Your task to perform on an android device: Add acer predator to the cart on walmart.com Image 0: 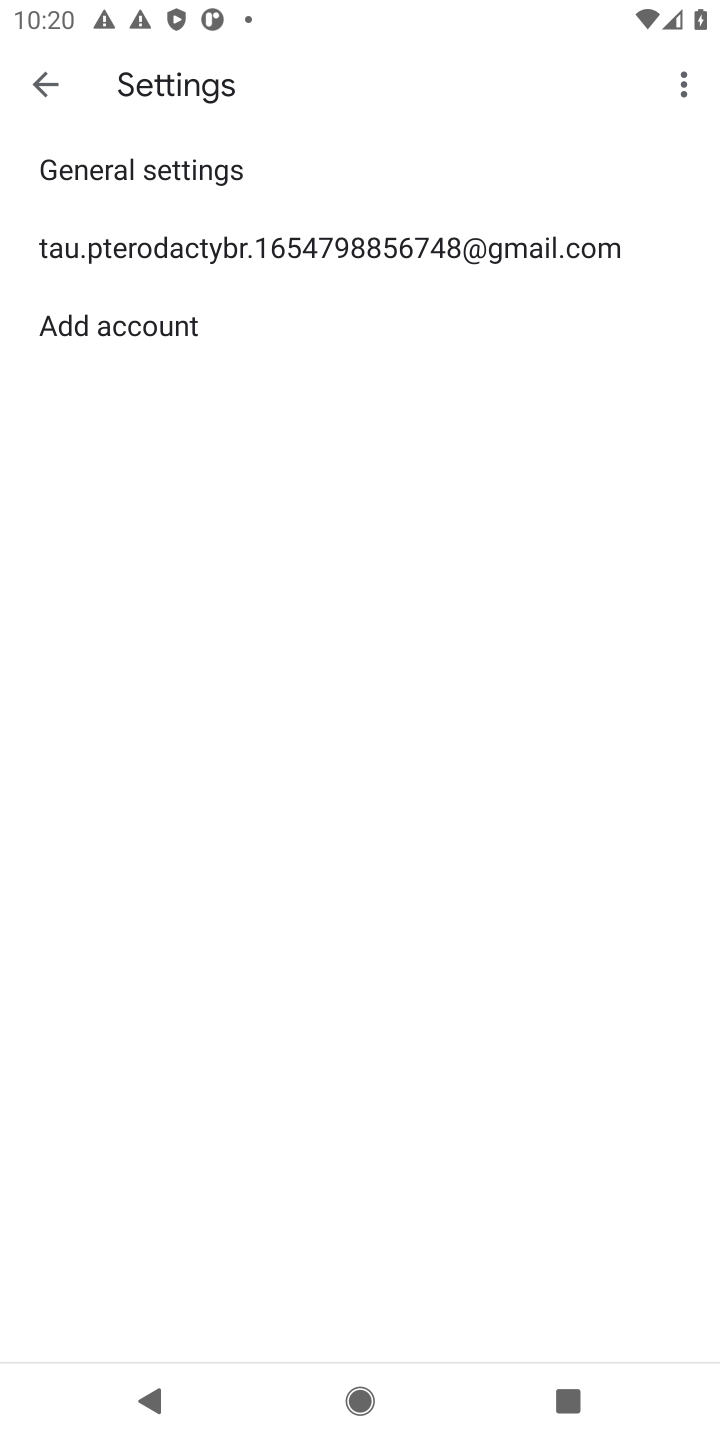
Step 0: press home button
Your task to perform on an android device: Add acer predator to the cart on walmart.com Image 1: 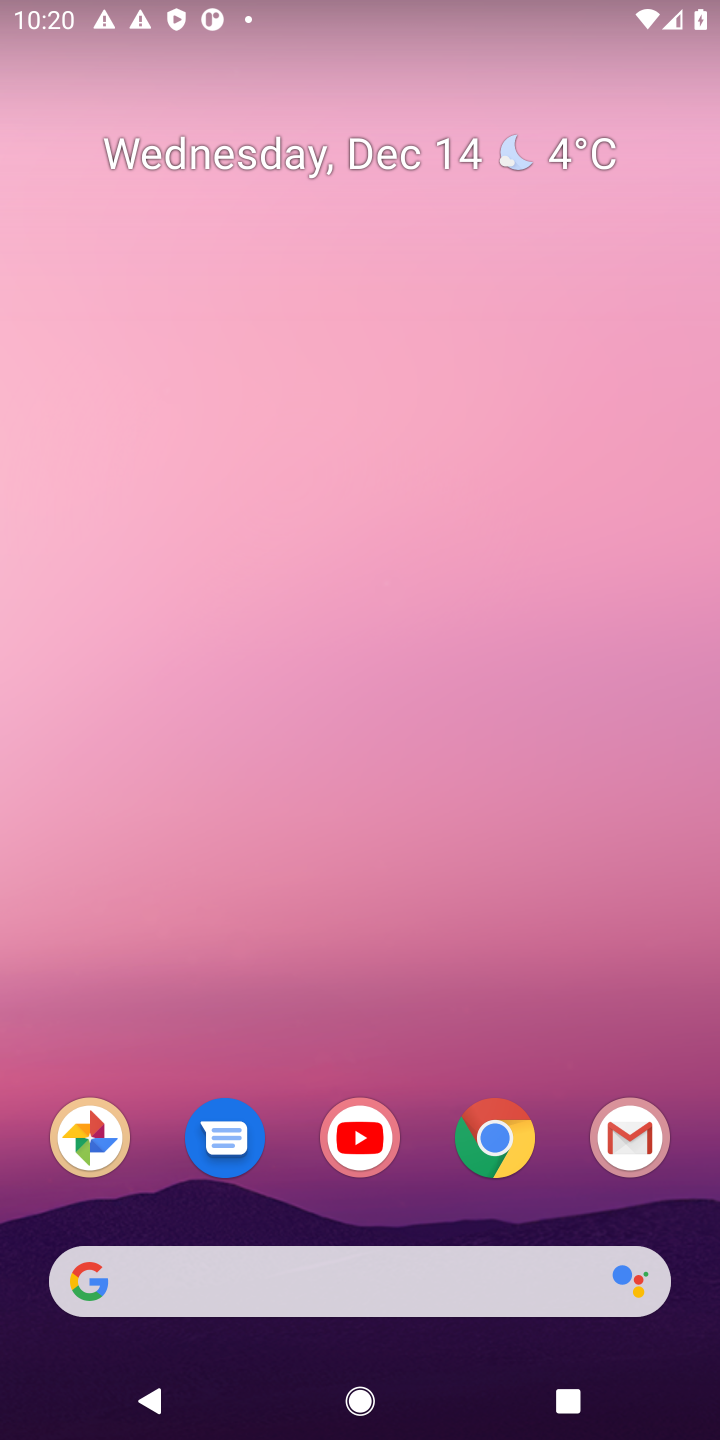
Step 1: click (496, 1140)
Your task to perform on an android device: Add acer predator to the cart on walmart.com Image 2: 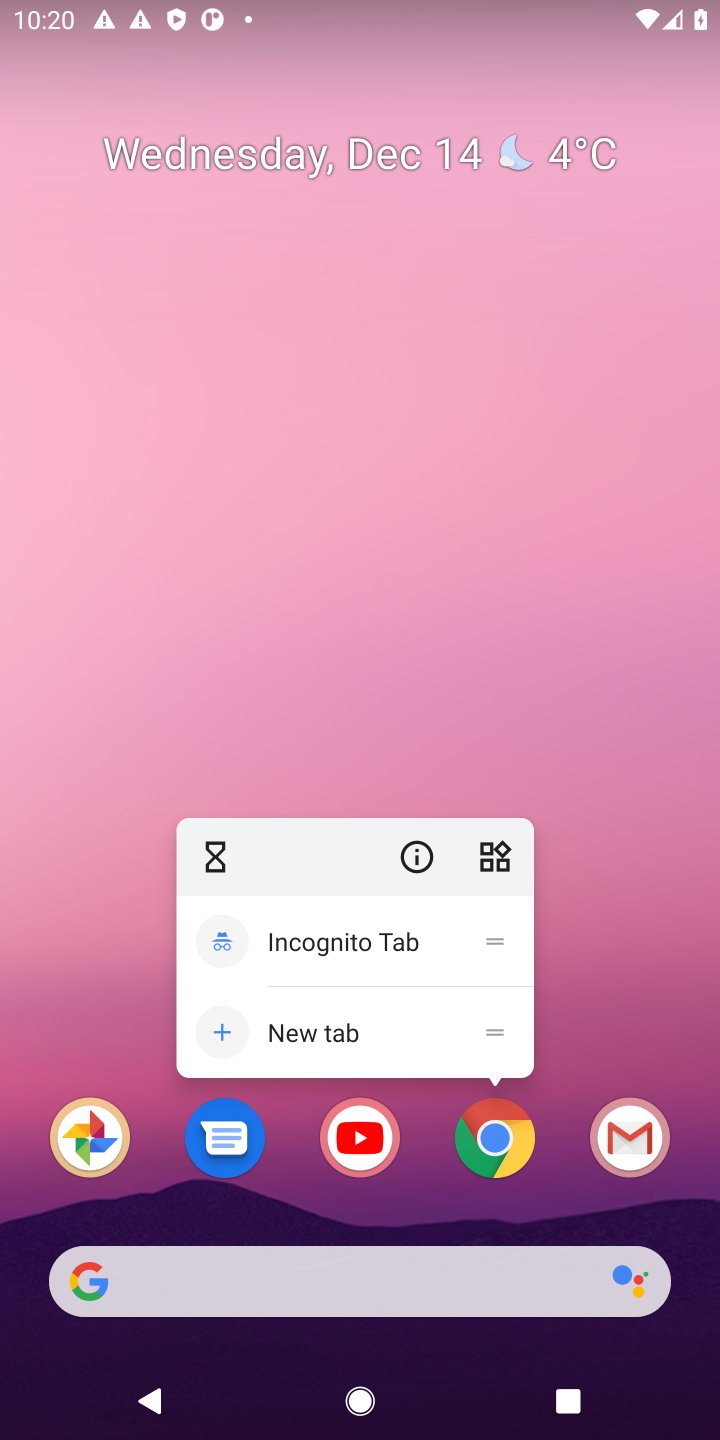
Step 2: click (498, 1139)
Your task to perform on an android device: Add acer predator to the cart on walmart.com Image 3: 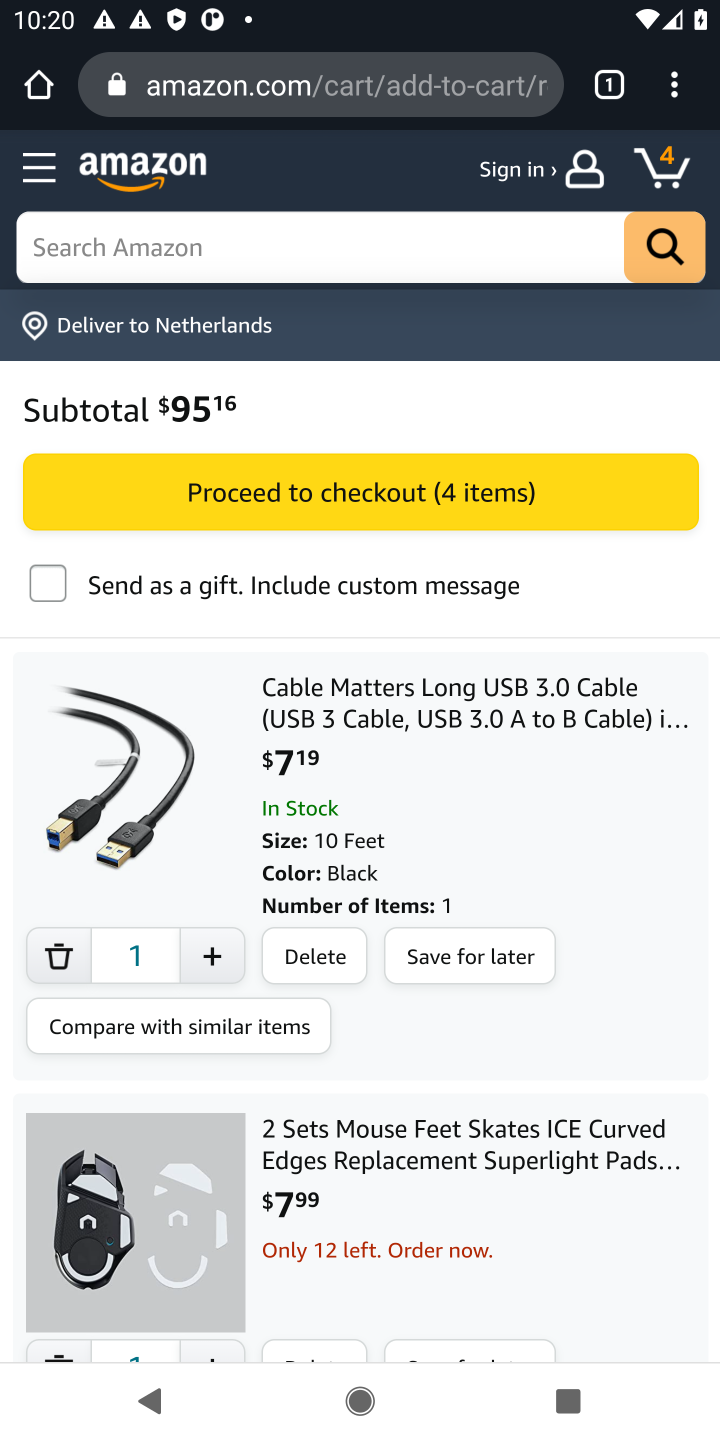
Step 3: click (232, 97)
Your task to perform on an android device: Add acer predator to the cart on walmart.com Image 4: 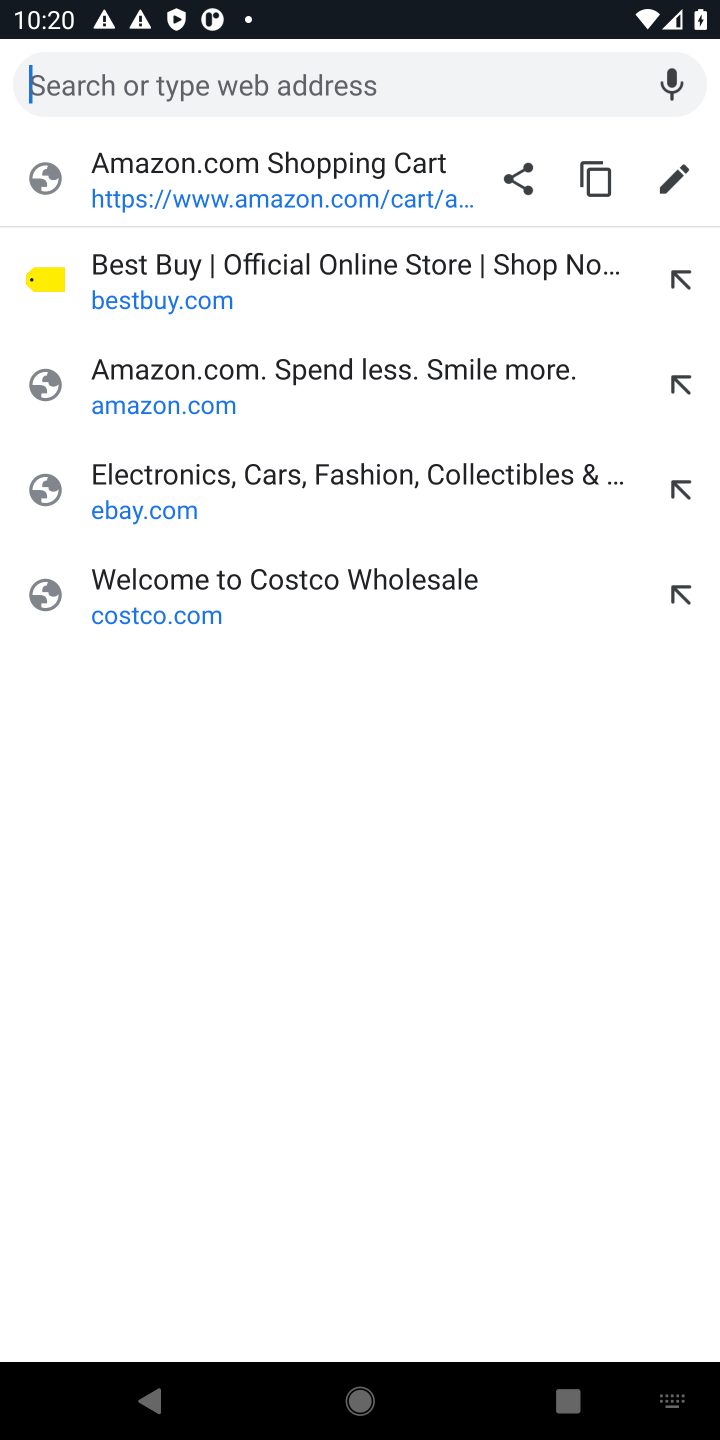
Step 4: type "walmart.com"
Your task to perform on an android device: Add acer predator to the cart on walmart.com Image 5: 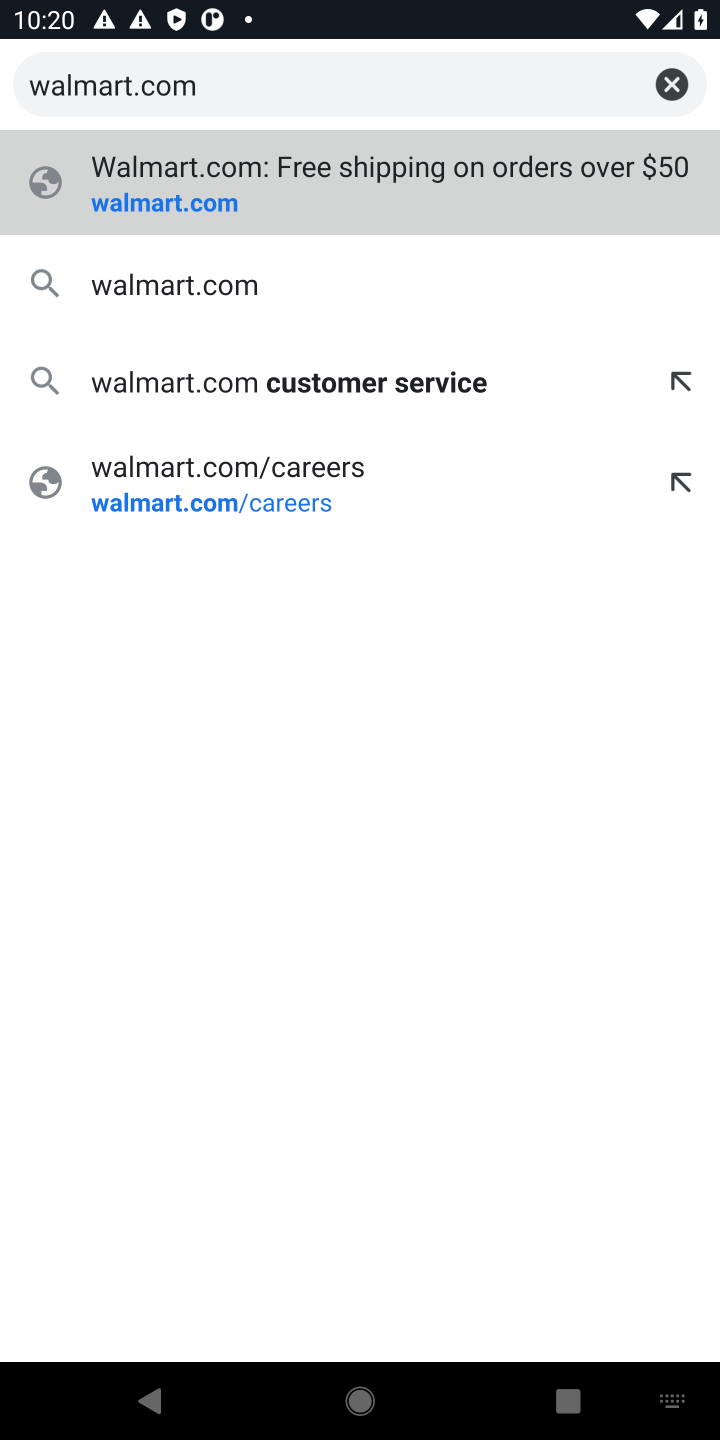
Step 5: click (113, 208)
Your task to perform on an android device: Add acer predator to the cart on walmart.com Image 6: 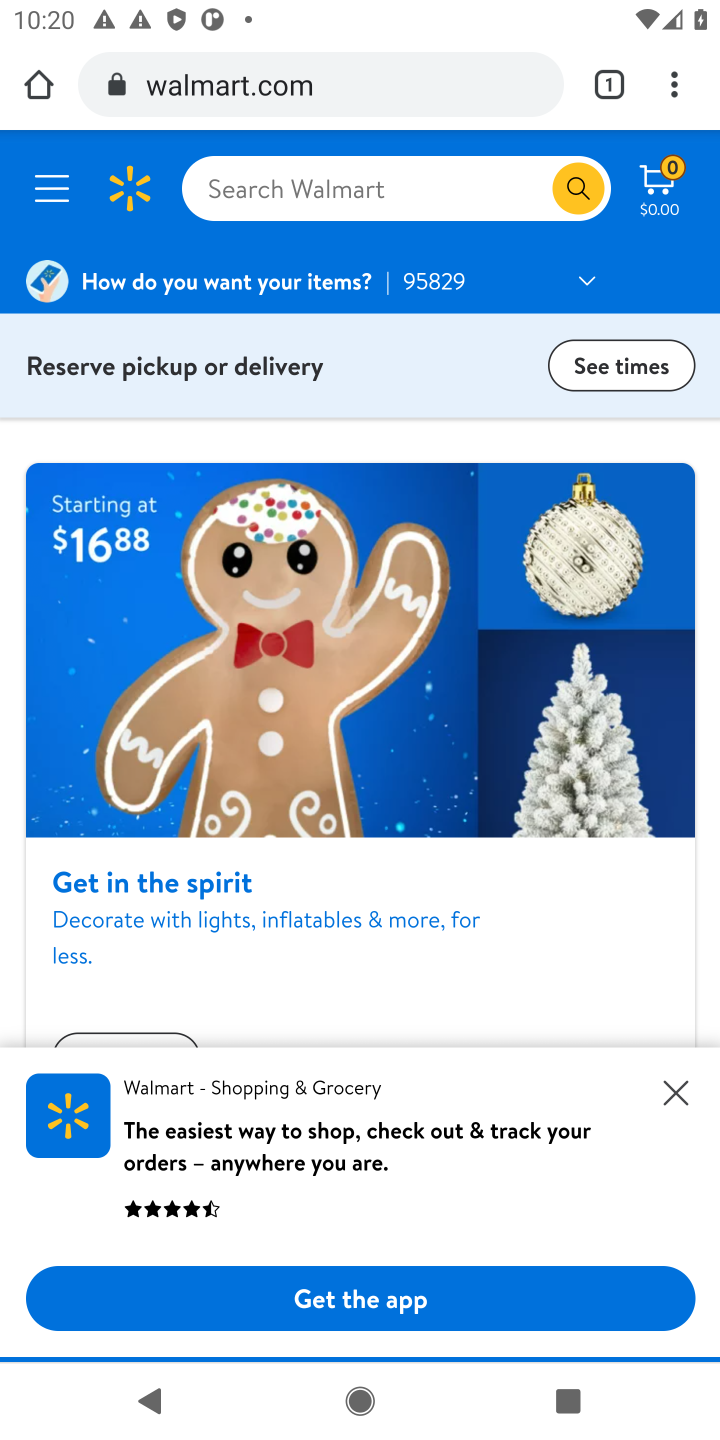
Step 6: click (251, 188)
Your task to perform on an android device: Add acer predator to the cart on walmart.com Image 7: 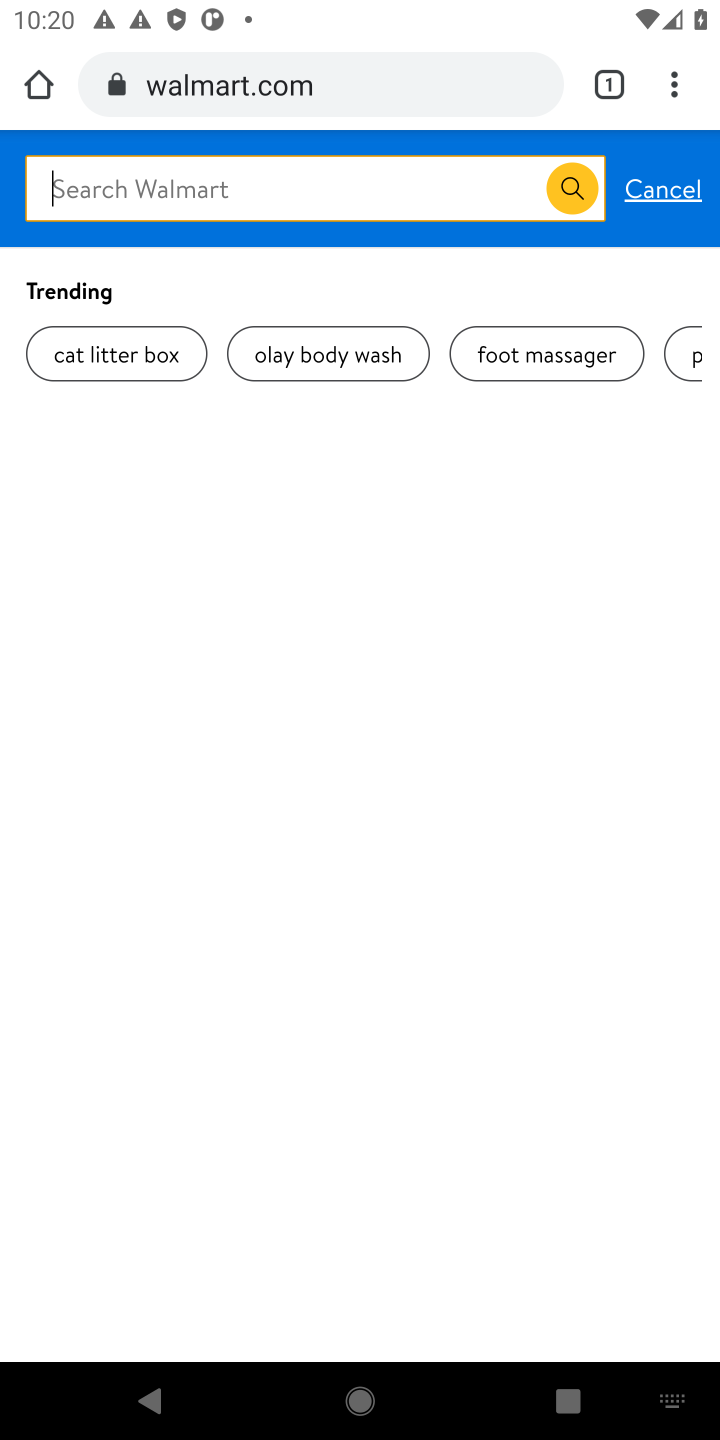
Step 7: type "acer predator"
Your task to perform on an android device: Add acer predator to the cart on walmart.com Image 8: 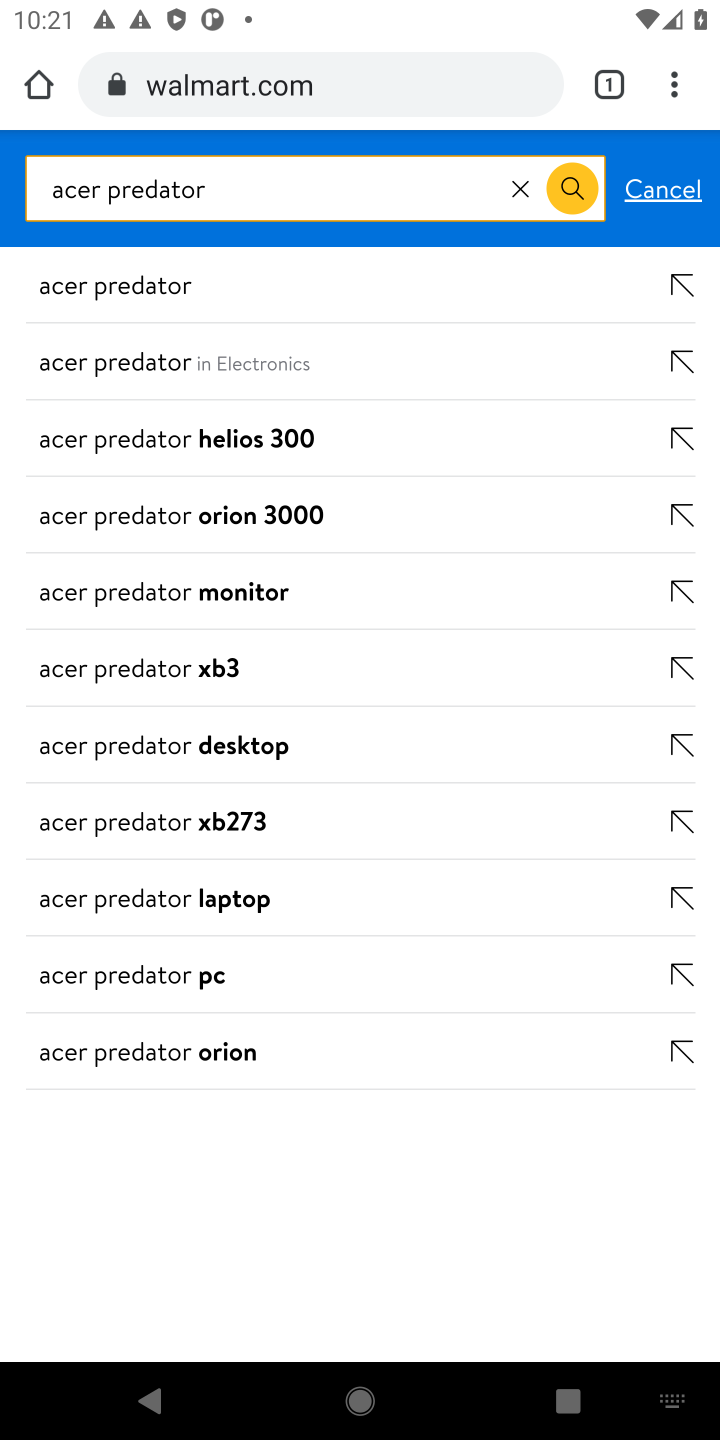
Step 8: click (92, 290)
Your task to perform on an android device: Add acer predator to the cart on walmart.com Image 9: 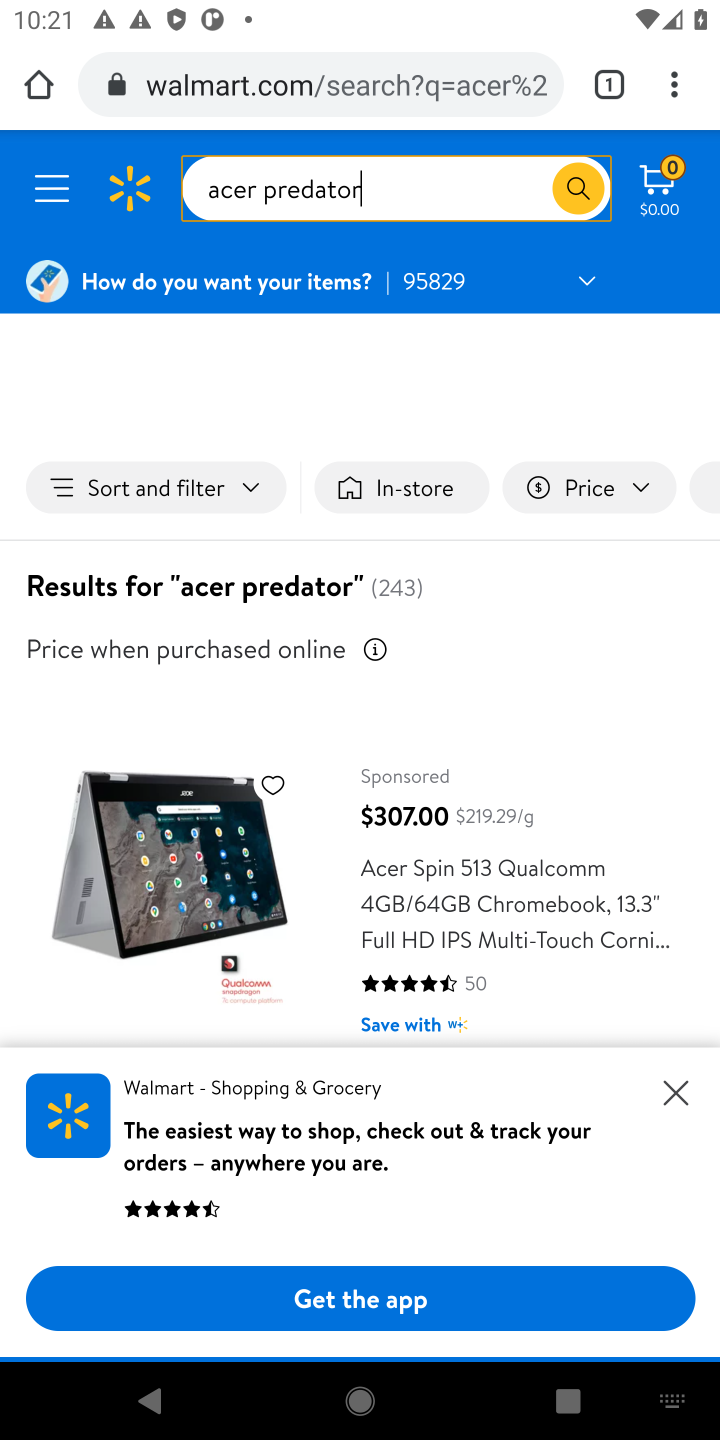
Step 9: drag from (273, 919) to (307, 446)
Your task to perform on an android device: Add acer predator to the cart on walmart.com Image 10: 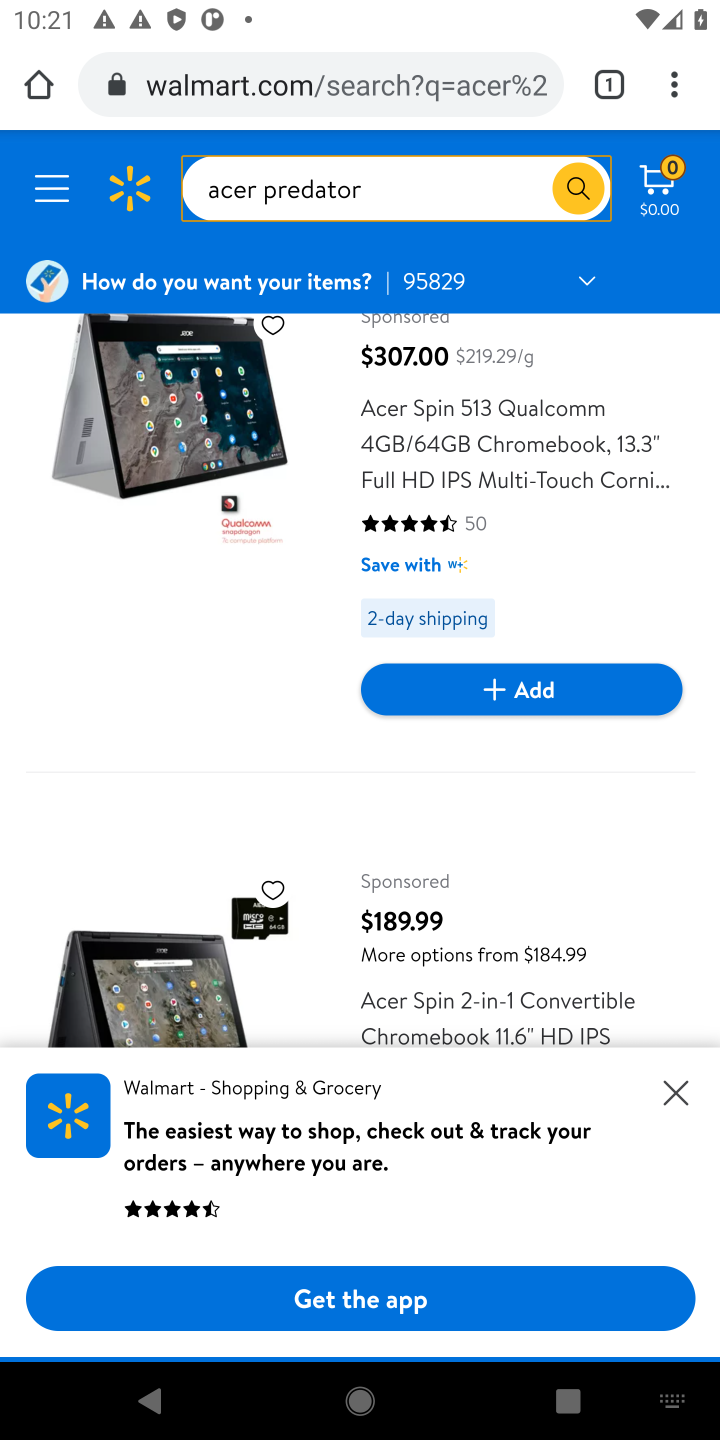
Step 10: click (678, 1095)
Your task to perform on an android device: Add acer predator to the cart on walmart.com Image 11: 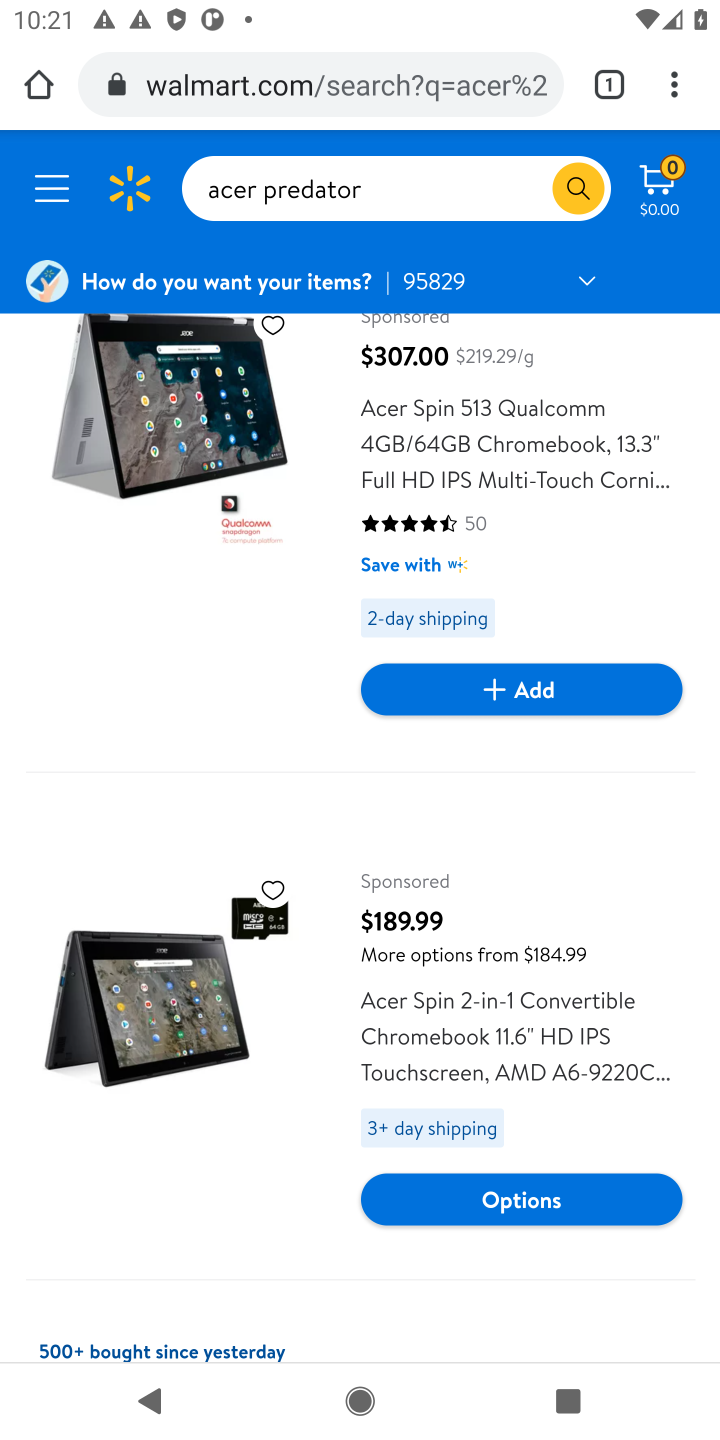
Step 11: drag from (279, 1016) to (270, 678)
Your task to perform on an android device: Add acer predator to the cart on walmart.com Image 12: 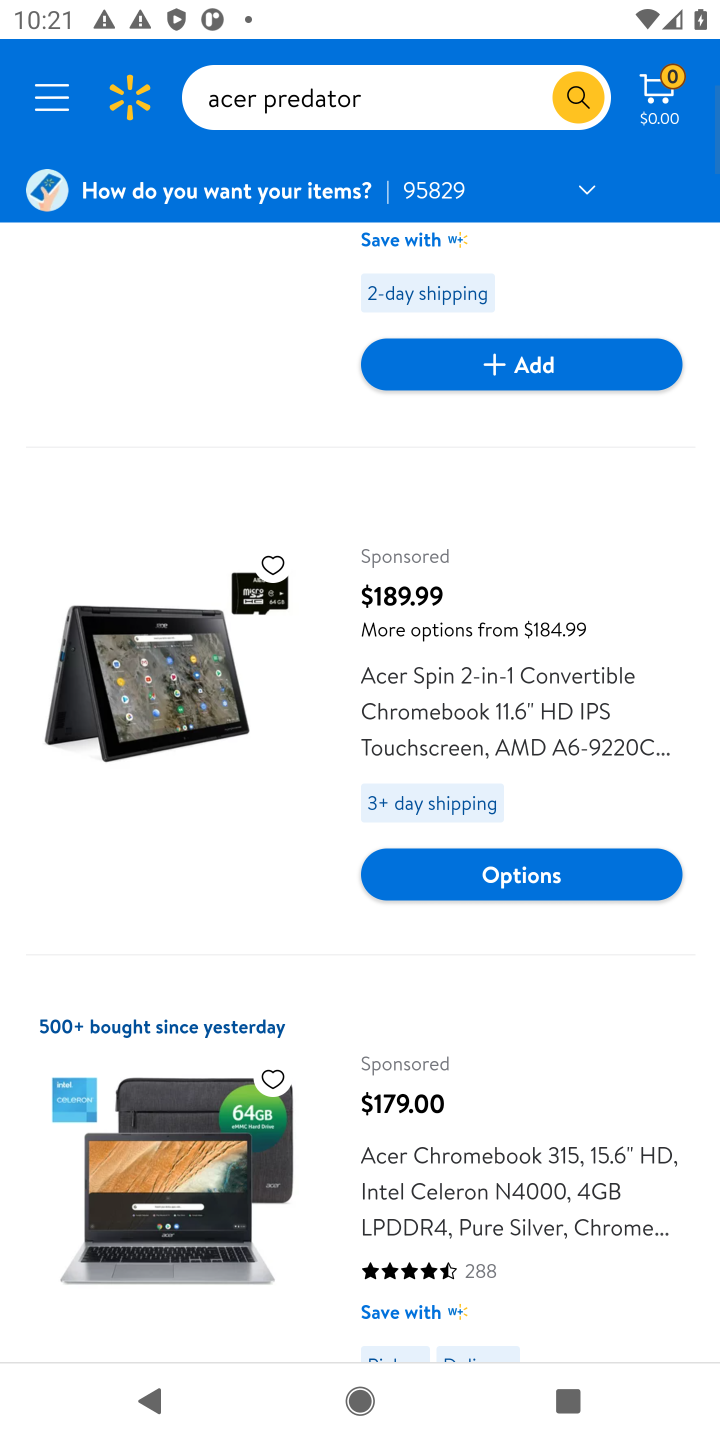
Step 12: drag from (243, 1114) to (280, 568)
Your task to perform on an android device: Add acer predator to the cart on walmart.com Image 13: 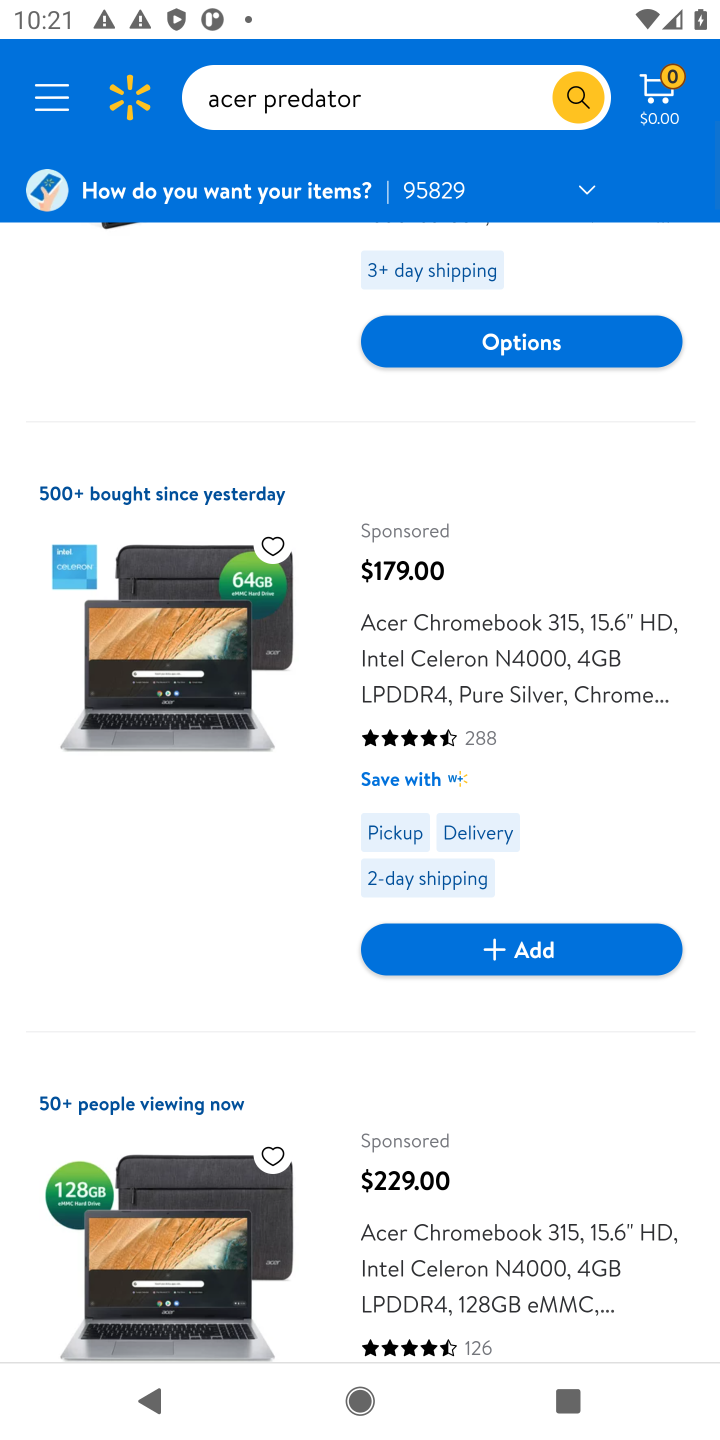
Step 13: drag from (255, 1071) to (304, 478)
Your task to perform on an android device: Add acer predator to the cart on walmart.com Image 14: 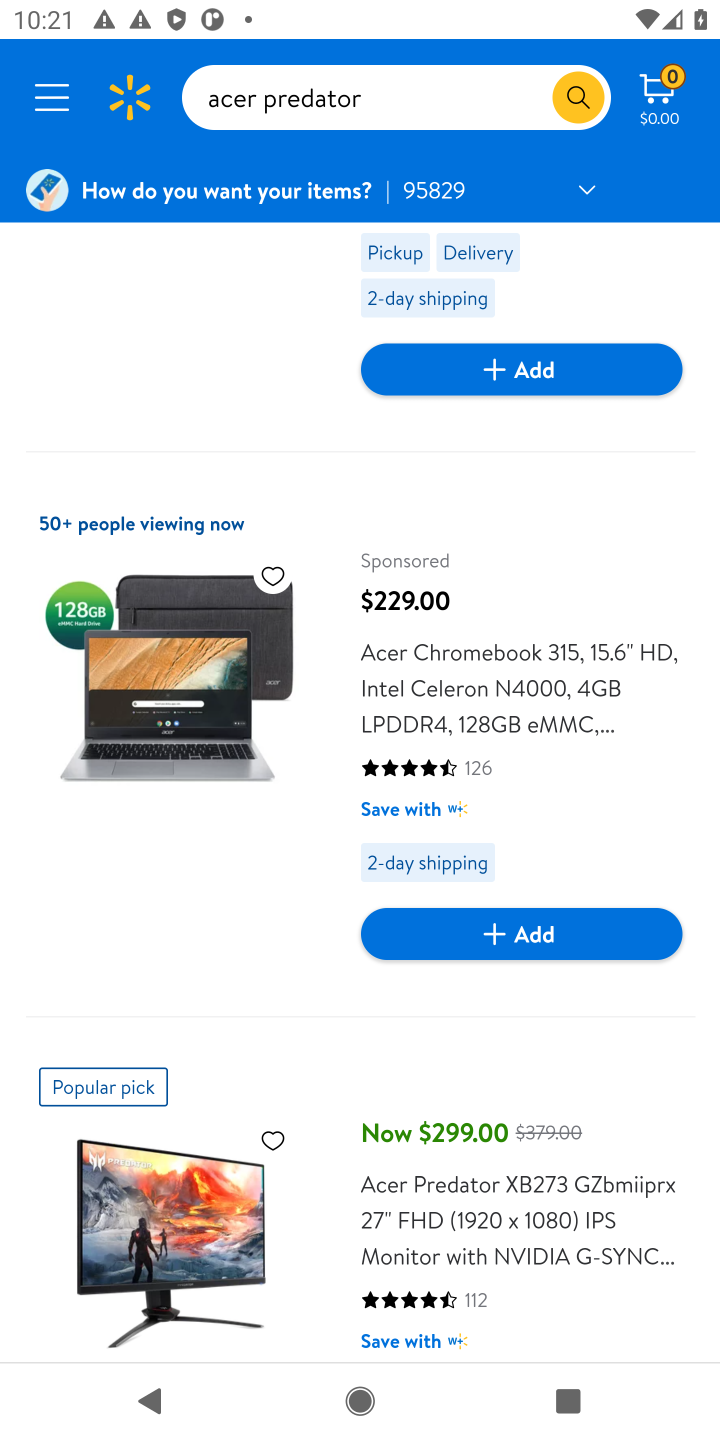
Step 14: drag from (241, 1108) to (295, 630)
Your task to perform on an android device: Add acer predator to the cart on walmart.com Image 15: 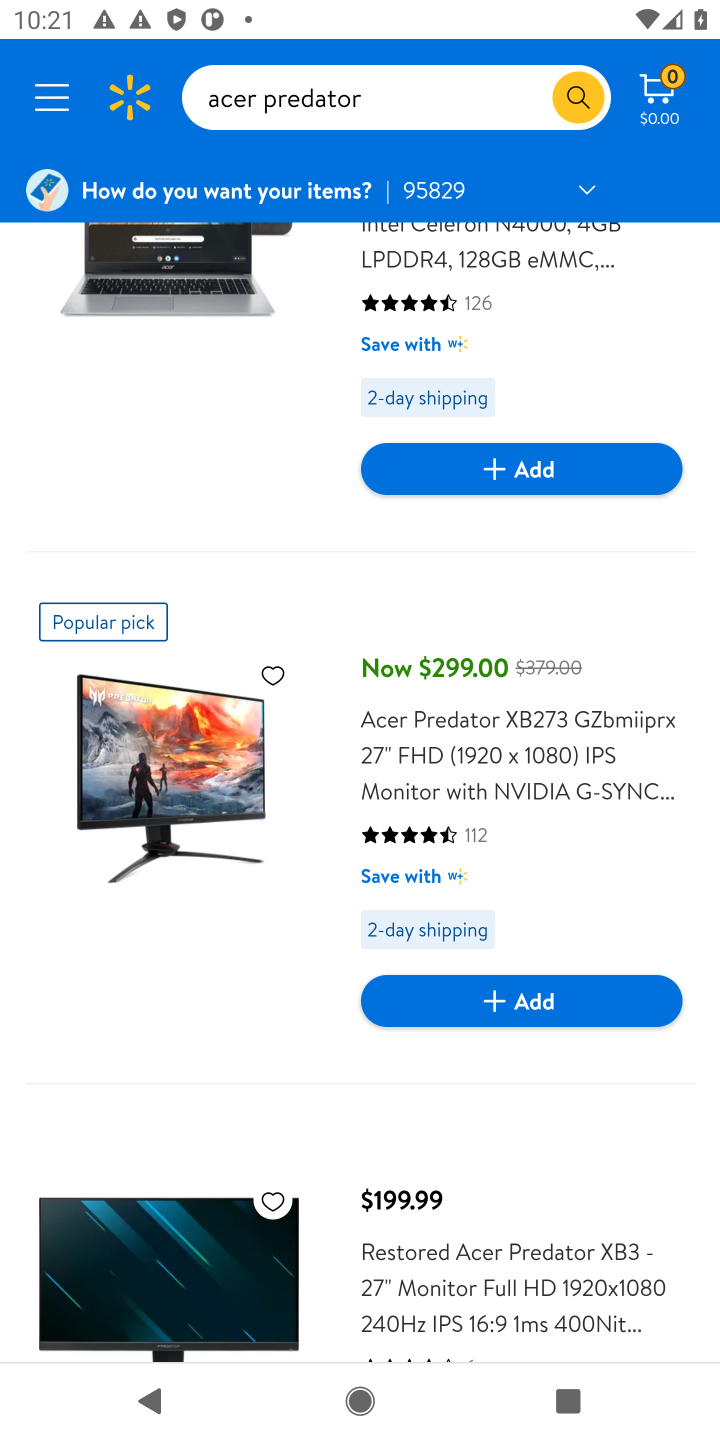
Step 15: click (471, 1000)
Your task to perform on an android device: Add acer predator to the cart on walmart.com Image 16: 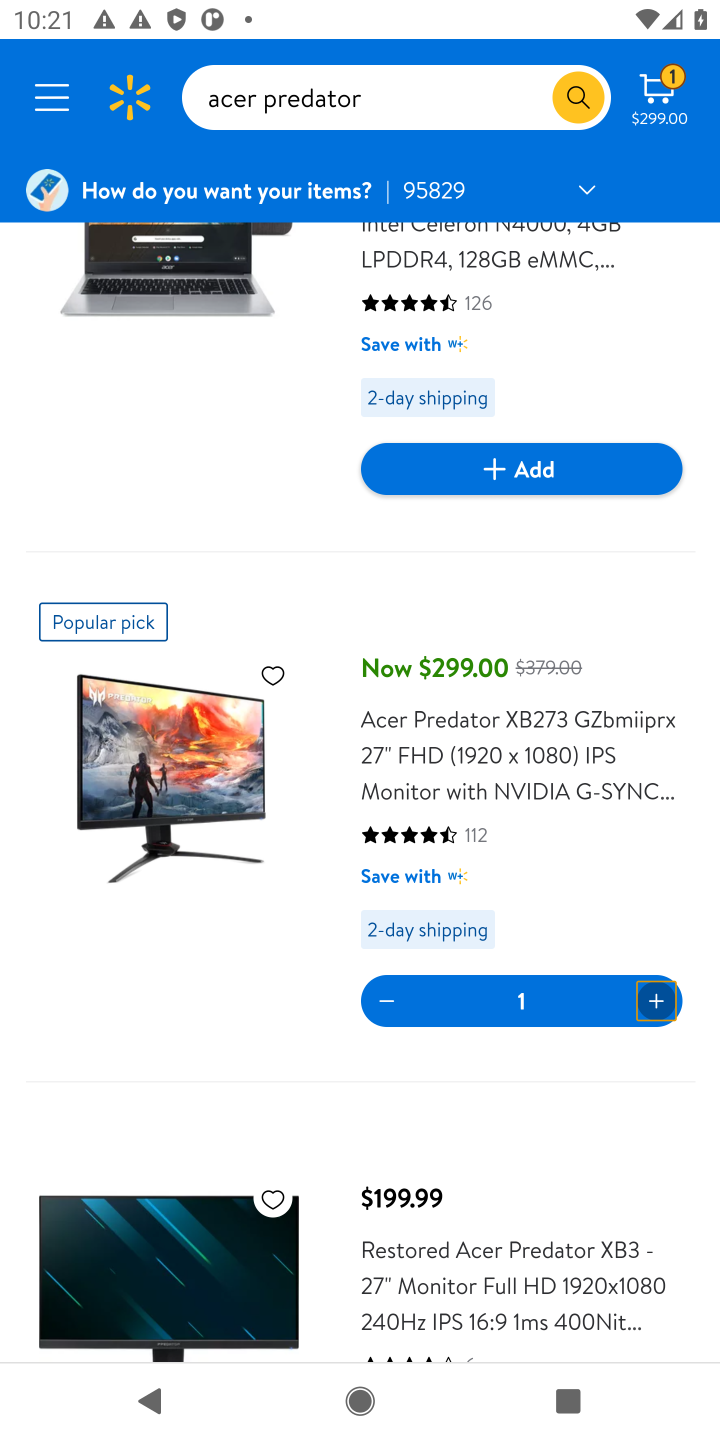
Step 16: task complete